Your task to perform on an android device: Open the map Image 0: 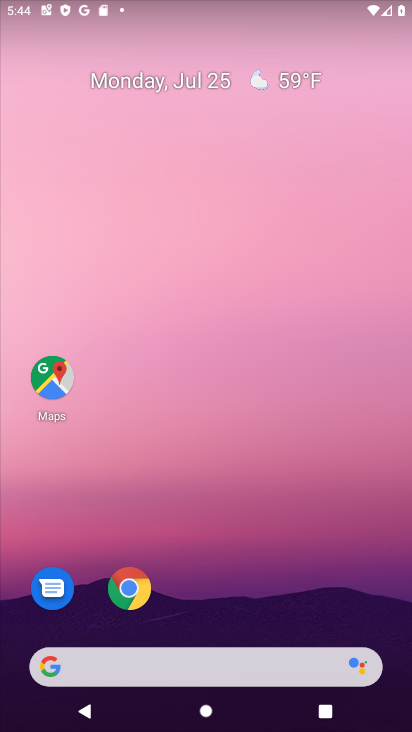
Step 0: click (46, 379)
Your task to perform on an android device: Open the map Image 1: 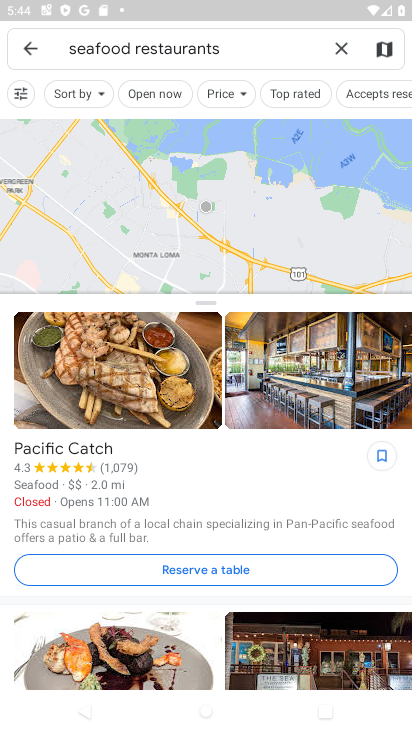
Step 1: task complete